Your task to perform on an android device: toggle show notifications on the lock screen Image 0: 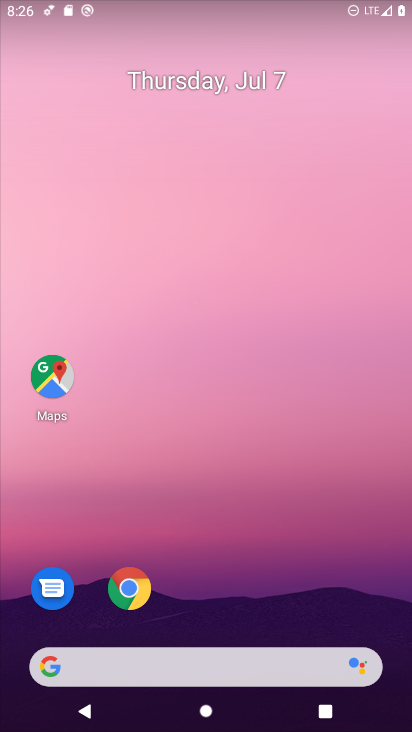
Step 0: drag from (262, 622) to (241, 243)
Your task to perform on an android device: toggle show notifications on the lock screen Image 1: 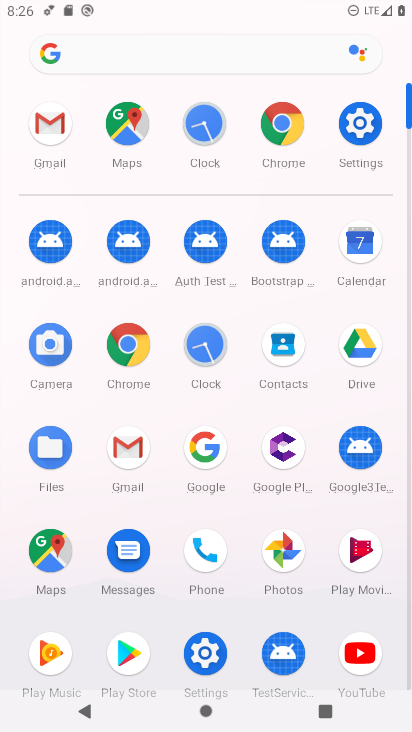
Step 1: click (358, 130)
Your task to perform on an android device: toggle show notifications on the lock screen Image 2: 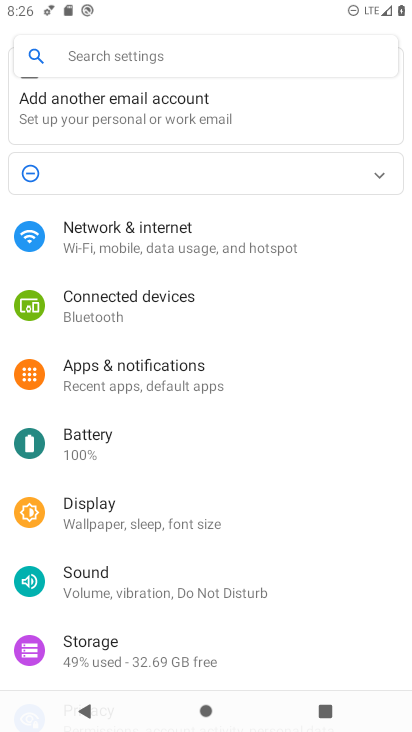
Step 2: click (152, 379)
Your task to perform on an android device: toggle show notifications on the lock screen Image 3: 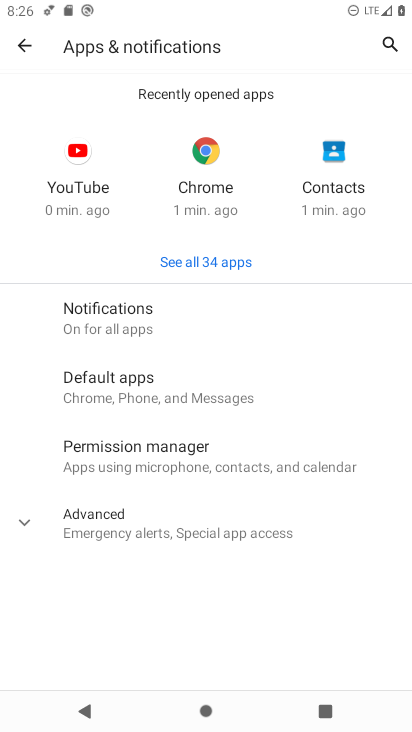
Step 3: click (148, 316)
Your task to perform on an android device: toggle show notifications on the lock screen Image 4: 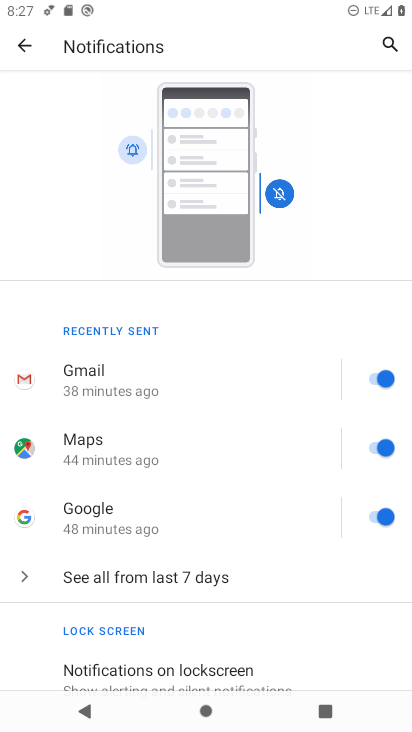
Step 4: drag from (187, 607) to (195, 303)
Your task to perform on an android device: toggle show notifications on the lock screen Image 5: 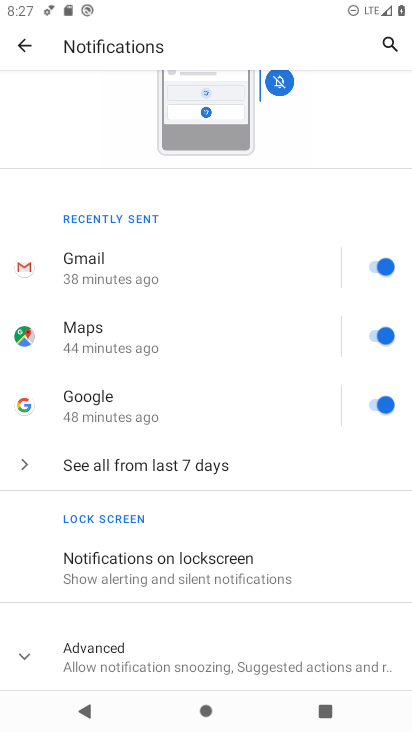
Step 5: click (216, 566)
Your task to perform on an android device: toggle show notifications on the lock screen Image 6: 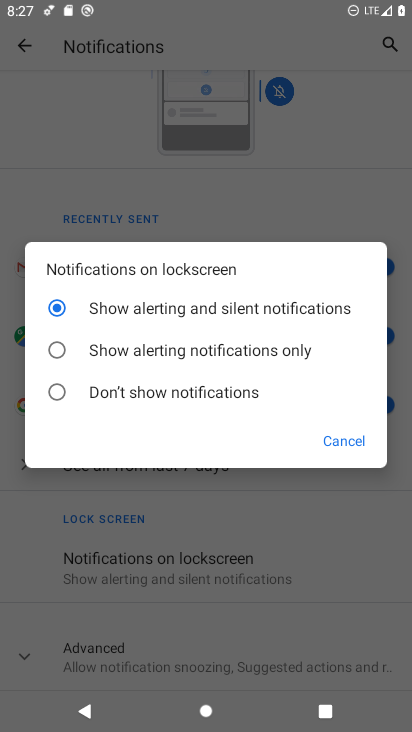
Step 6: click (149, 390)
Your task to perform on an android device: toggle show notifications on the lock screen Image 7: 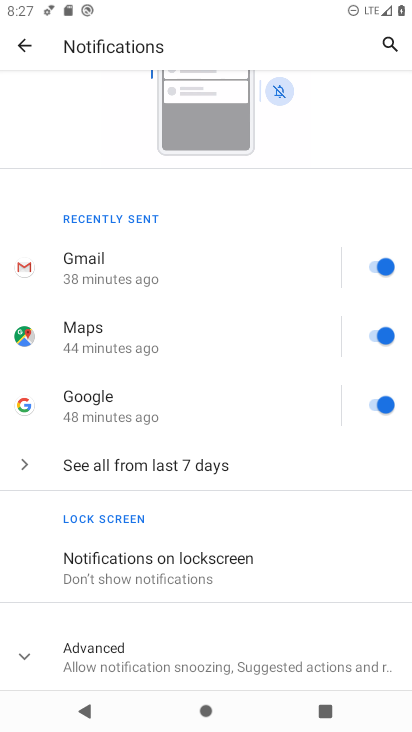
Step 7: task complete